Your task to perform on an android device: change keyboard looks Image 0: 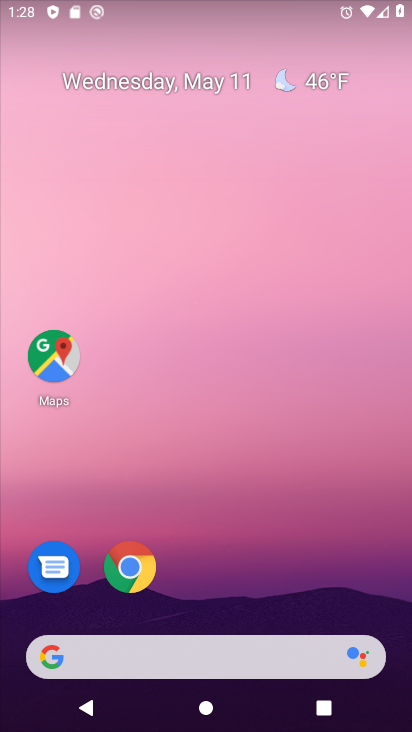
Step 0: drag from (229, 621) to (212, 2)
Your task to perform on an android device: change keyboard looks Image 1: 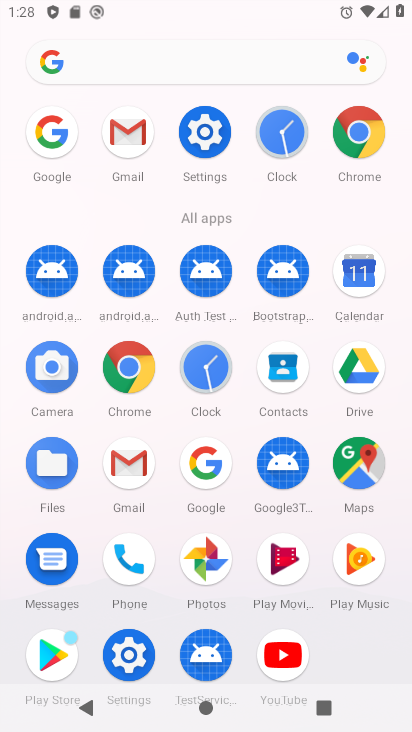
Step 1: click (227, 132)
Your task to perform on an android device: change keyboard looks Image 2: 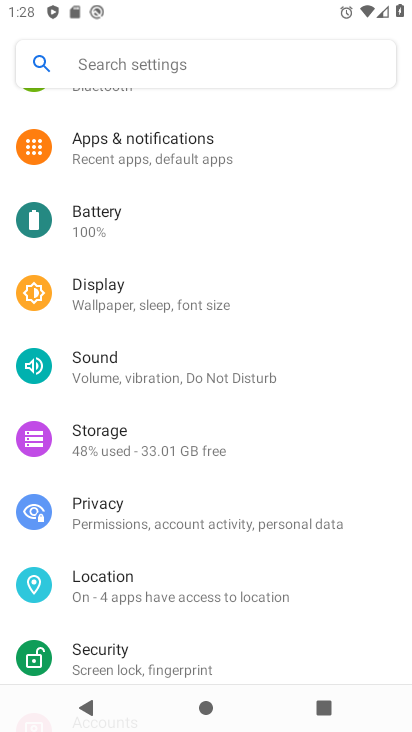
Step 2: drag from (144, 584) to (87, 183)
Your task to perform on an android device: change keyboard looks Image 3: 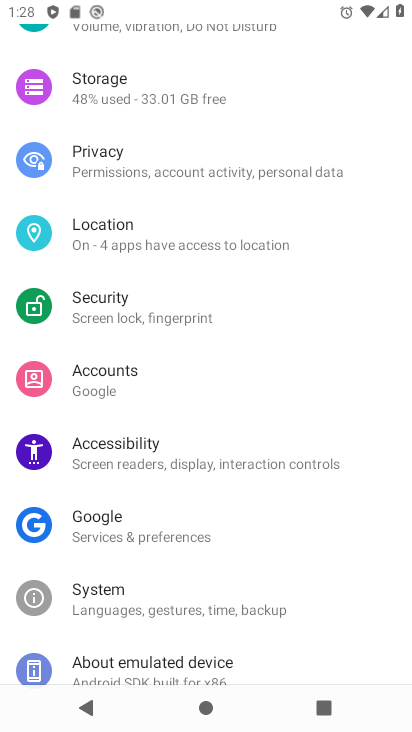
Step 3: click (121, 615)
Your task to perform on an android device: change keyboard looks Image 4: 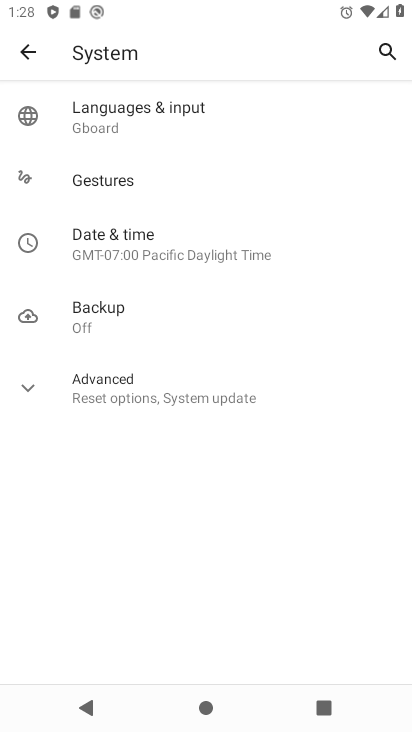
Step 4: click (173, 107)
Your task to perform on an android device: change keyboard looks Image 5: 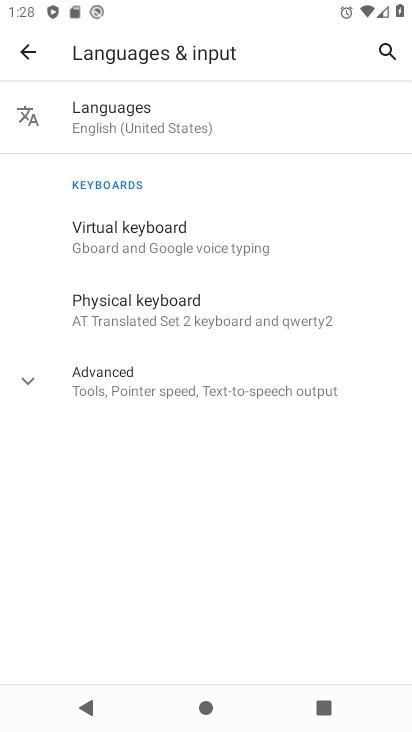
Step 5: click (141, 220)
Your task to perform on an android device: change keyboard looks Image 6: 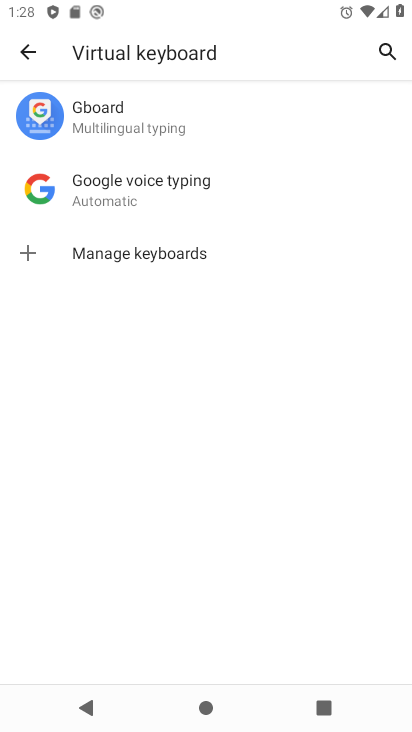
Step 6: click (112, 137)
Your task to perform on an android device: change keyboard looks Image 7: 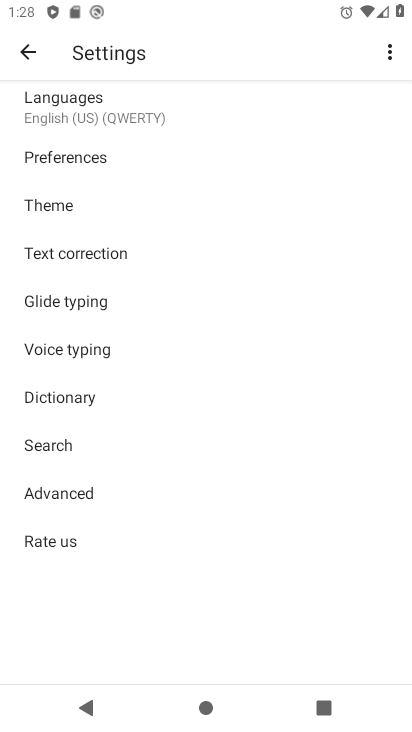
Step 7: click (47, 210)
Your task to perform on an android device: change keyboard looks Image 8: 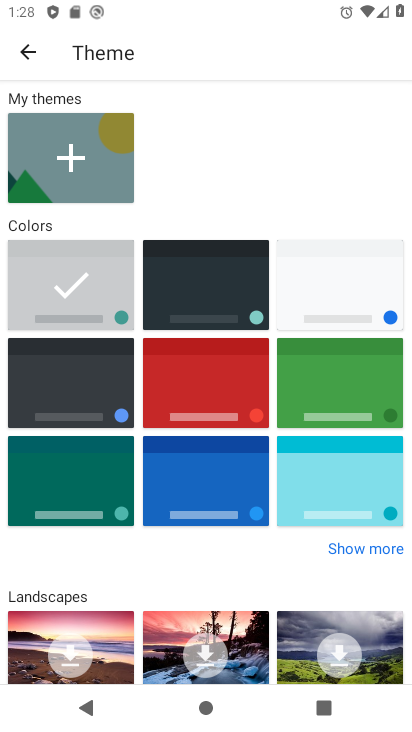
Step 8: click (234, 304)
Your task to perform on an android device: change keyboard looks Image 9: 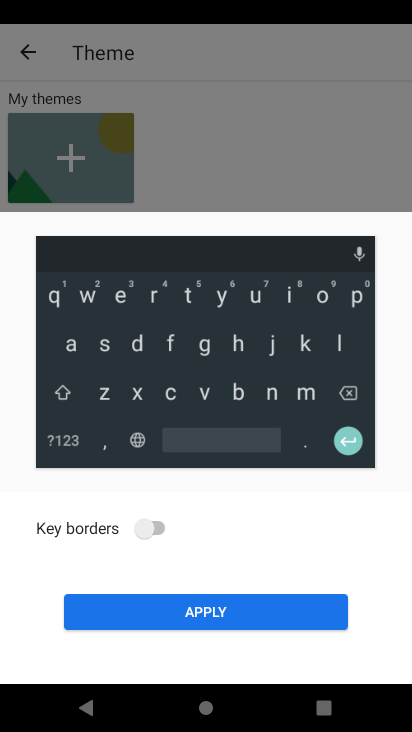
Step 9: click (227, 610)
Your task to perform on an android device: change keyboard looks Image 10: 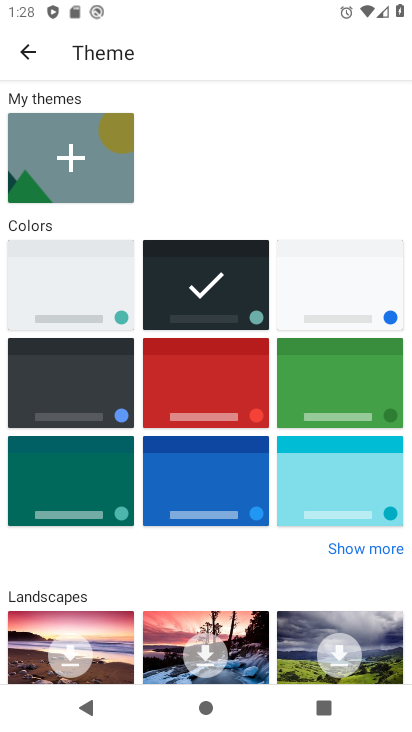
Step 10: task complete